Your task to perform on an android device: turn pop-ups on in chrome Image 0: 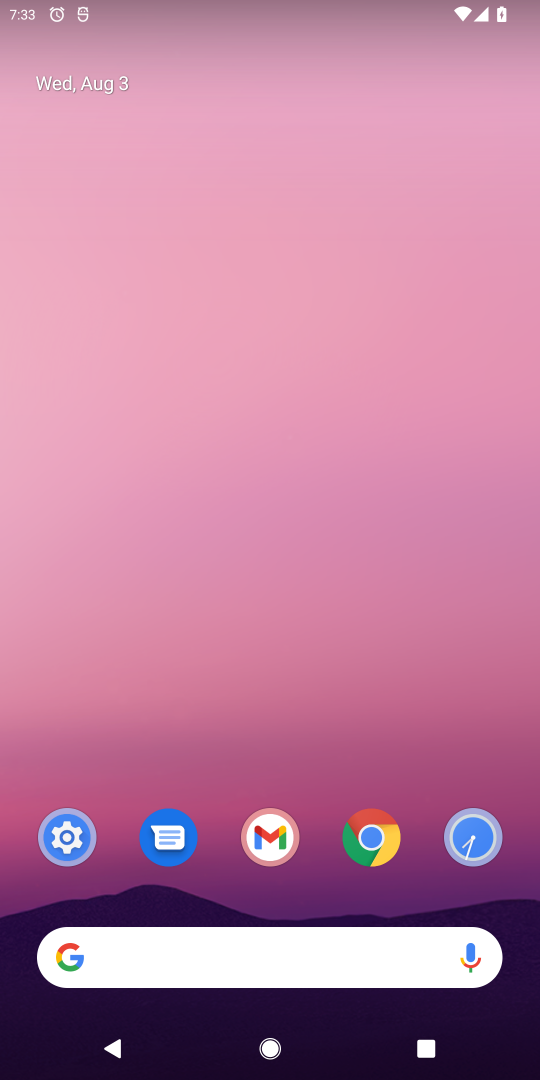
Step 0: press home button
Your task to perform on an android device: turn pop-ups on in chrome Image 1: 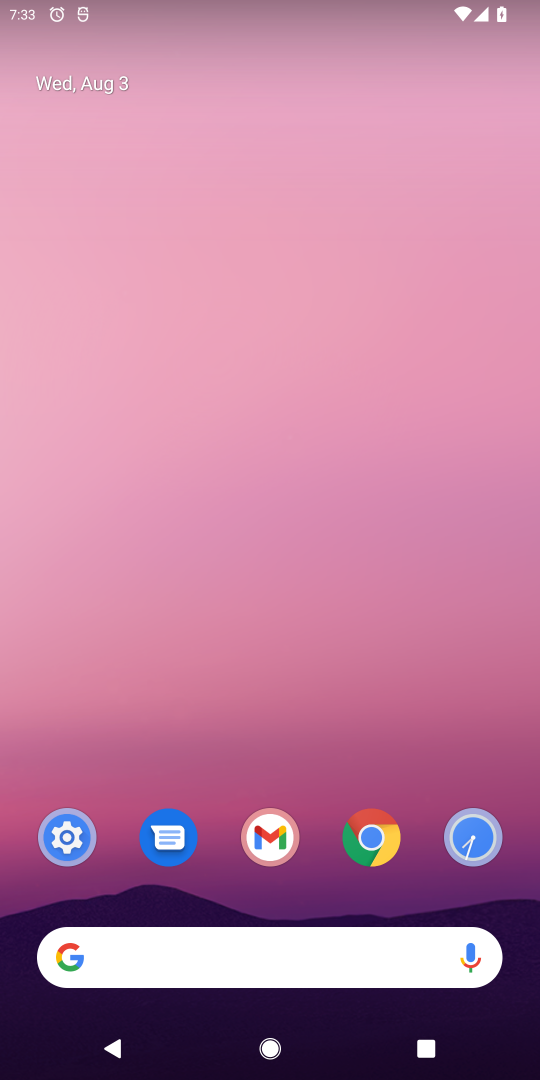
Step 1: click (369, 853)
Your task to perform on an android device: turn pop-ups on in chrome Image 2: 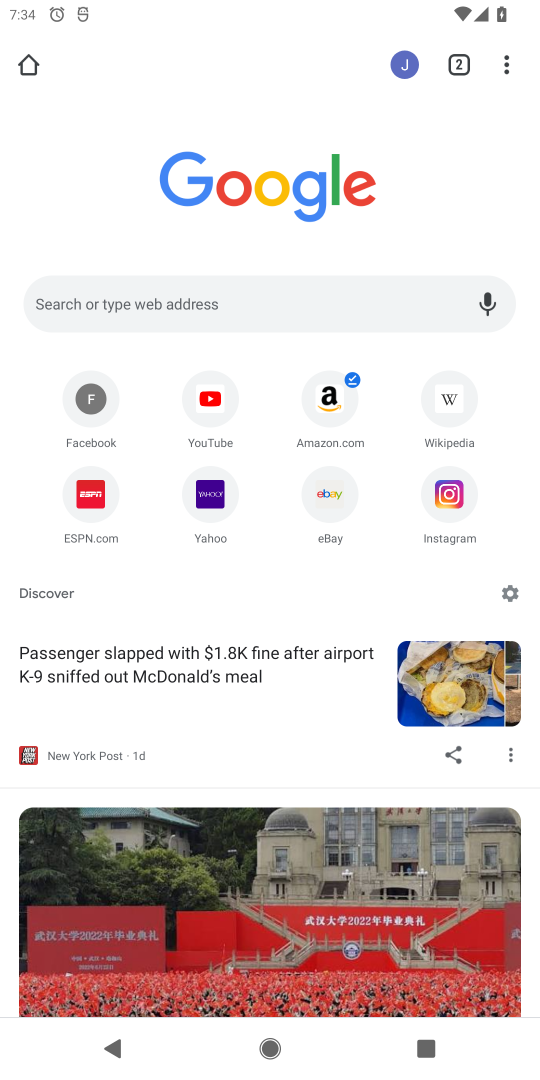
Step 2: drag from (505, 64) to (310, 630)
Your task to perform on an android device: turn pop-ups on in chrome Image 3: 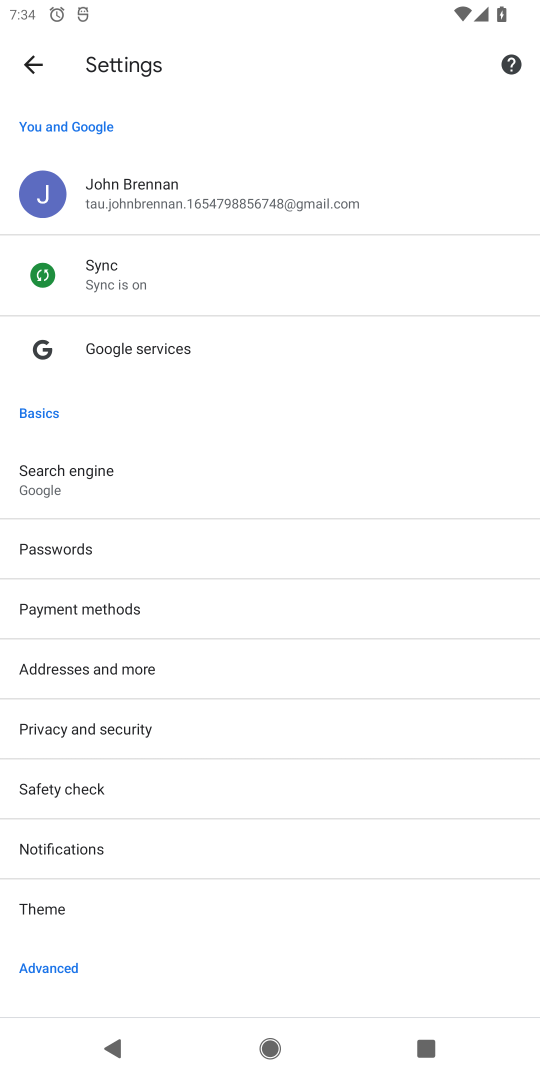
Step 3: drag from (327, 704) to (446, 80)
Your task to perform on an android device: turn pop-ups on in chrome Image 4: 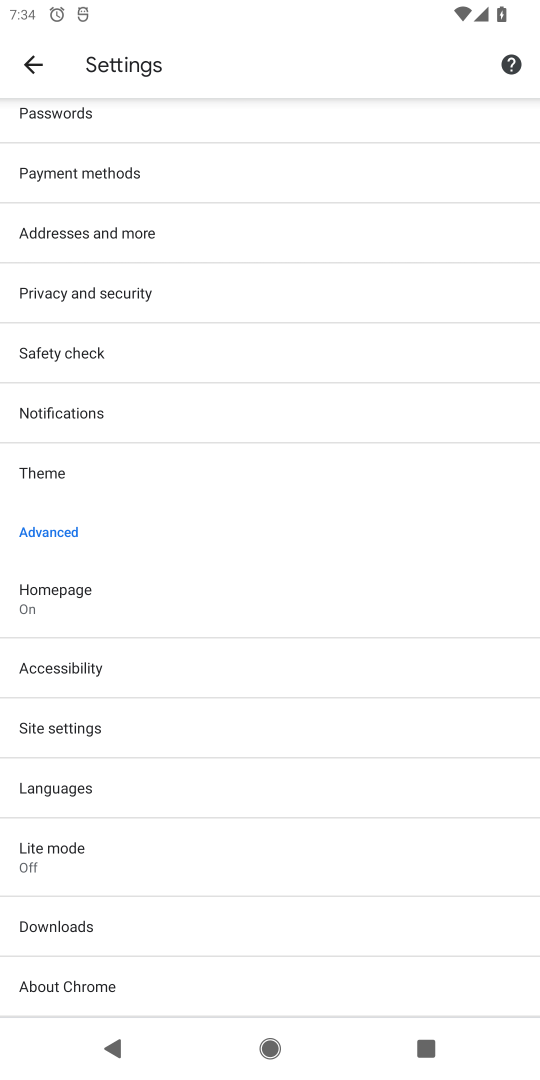
Step 4: click (54, 728)
Your task to perform on an android device: turn pop-ups on in chrome Image 5: 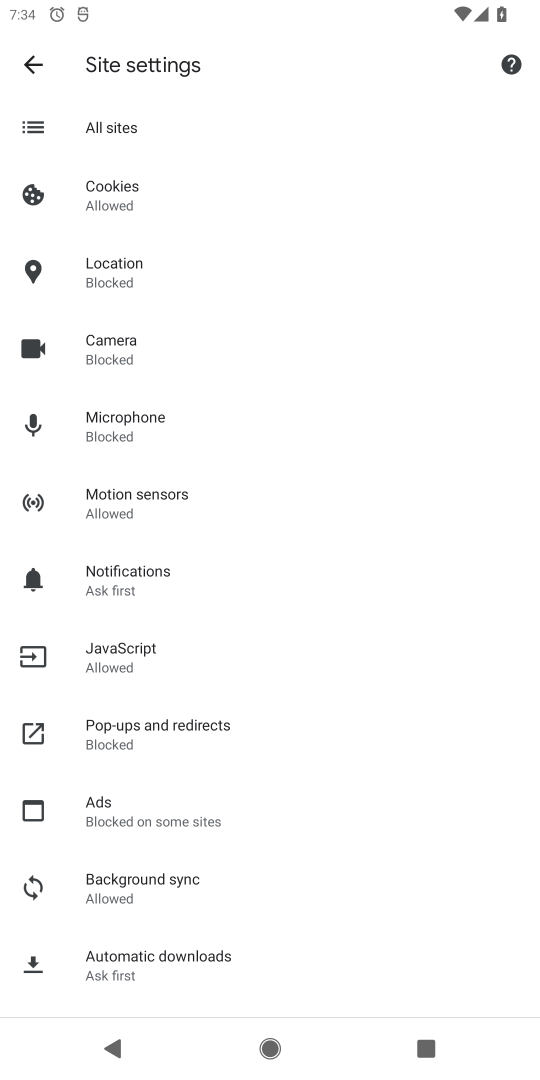
Step 5: click (159, 727)
Your task to perform on an android device: turn pop-ups on in chrome Image 6: 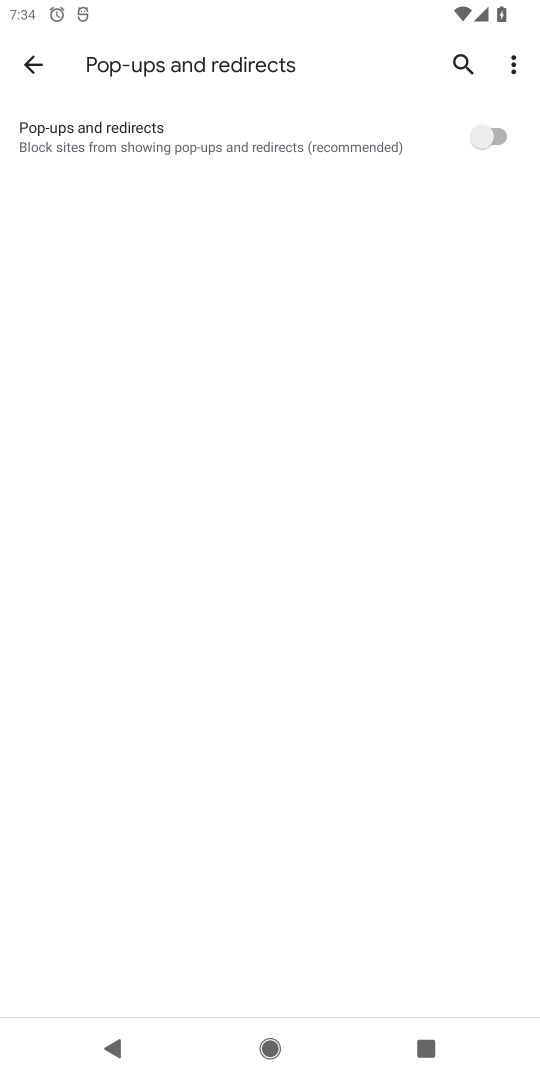
Step 6: click (482, 134)
Your task to perform on an android device: turn pop-ups on in chrome Image 7: 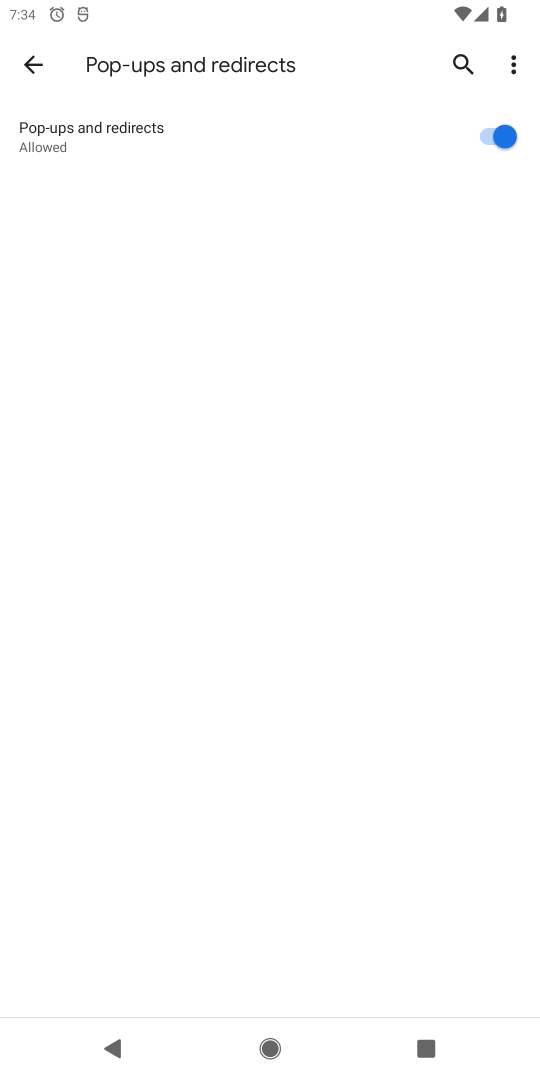
Step 7: task complete